Your task to perform on an android device: turn on translation in the chrome app Image 0: 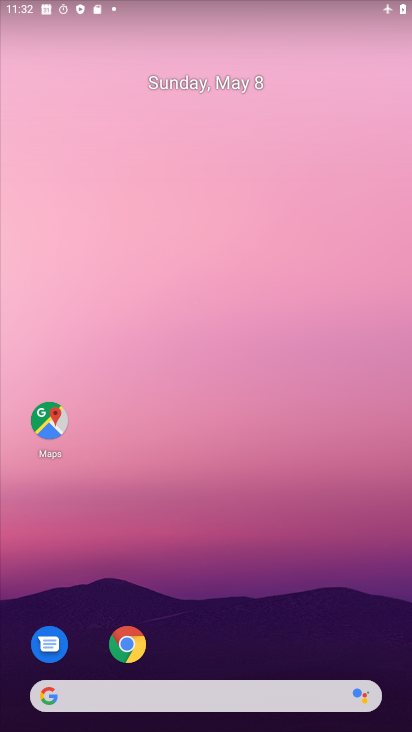
Step 0: drag from (148, 593) to (85, 157)
Your task to perform on an android device: turn on translation in the chrome app Image 1: 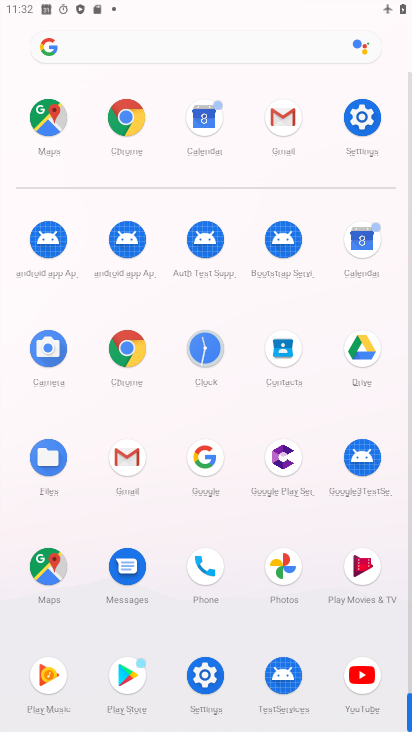
Step 1: click (126, 352)
Your task to perform on an android device: turn on translation in the chrome app Image 2: 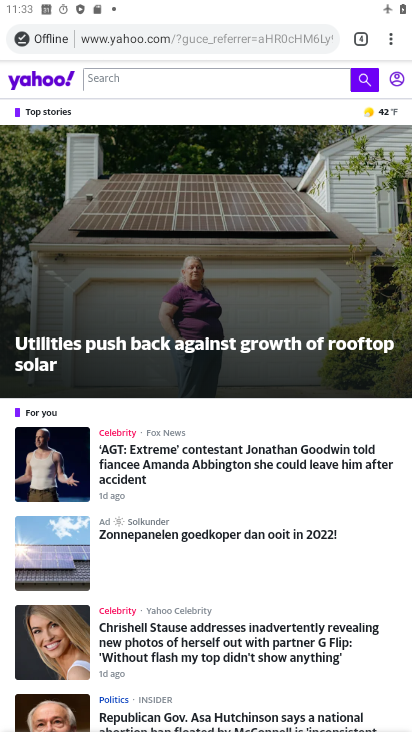
Step 2: drag from (233, 600) to (350, 156)
Your task to perform on an android device: turn on translation in the chrome app Image 3: 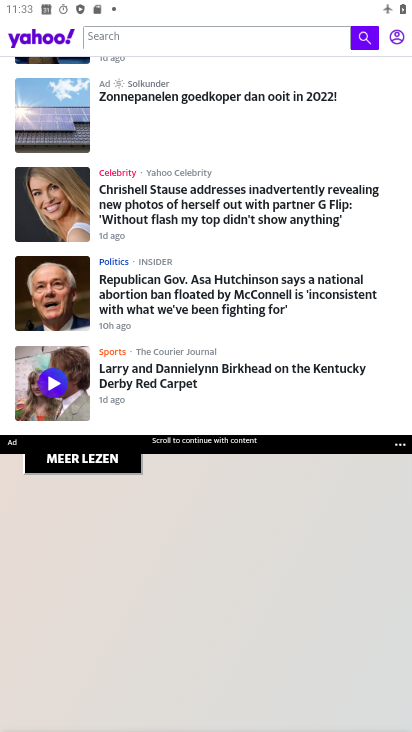
Step 3: drag from (289, 136) to (202, 684)
Your task to perform on an android device: turn on translation in the chrome app Image 4: 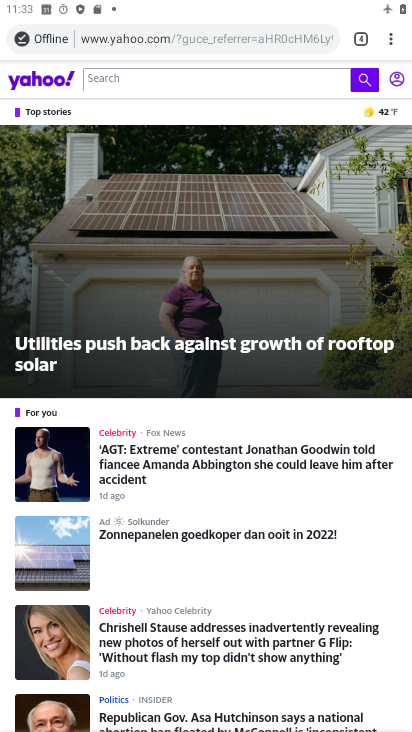
Step 4: click (385, 41)
Your task to perform on an android device: turn on translation in the chrome app Image 5: 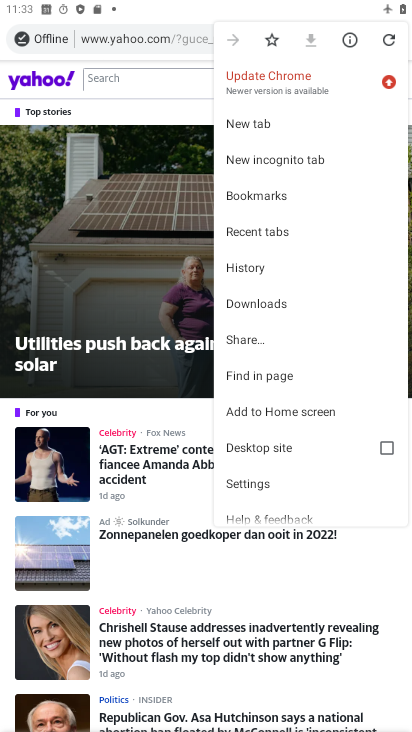
Step 5: click (263, 479)
Your task to perform on an android device: turn on translation in the chrome app Image 6: 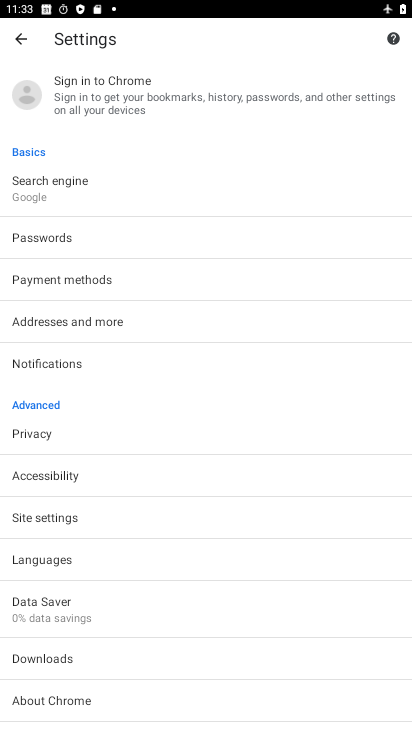
Step 6: drag from (203, 630) to (262, 263)
Your task to perform on an android device: turn on translation in the chrome app Image 7: 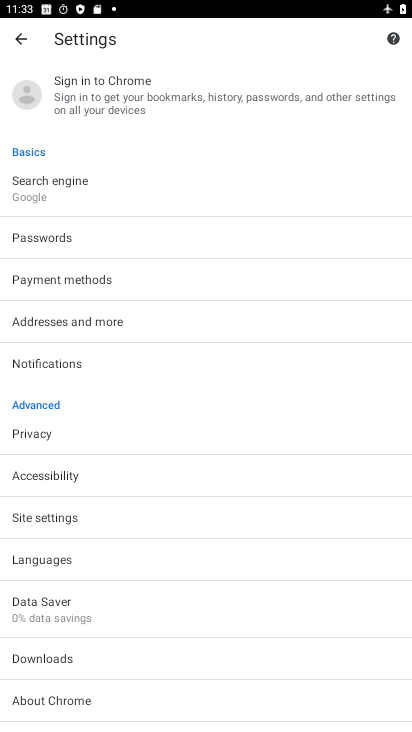
Step 7: drag from (174, 557) to (205, 358)
Your task to perform on an android device: turn on translation in the chrome app Image 8: 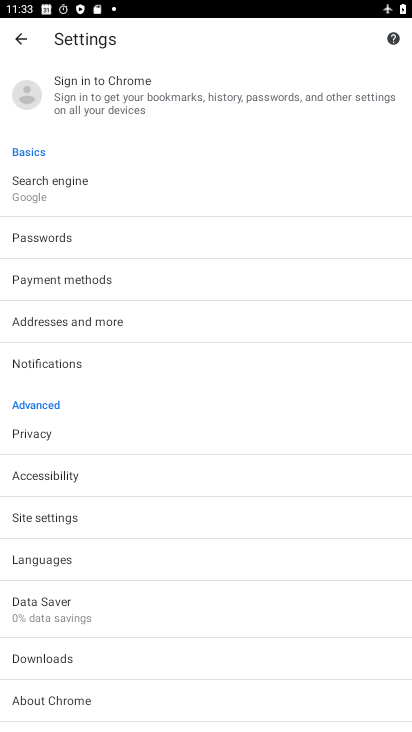
Step 8: click (82, 562)
Your task to perform on an android device: turn on translation in the chrome app Image 9: 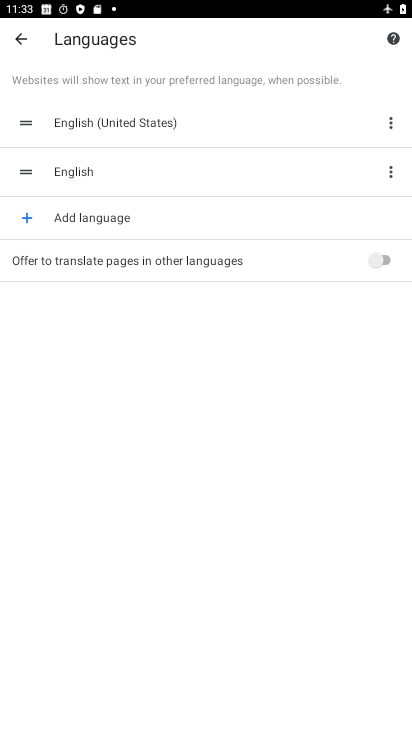
Step 9: click (357, 257)
Your task to perform on an android device: turn on translation in the chrome app Image 10: 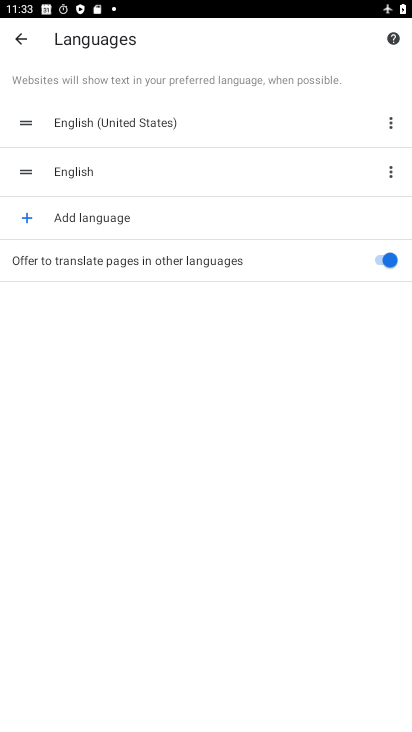
Step 10: task complete